Your task to perform on an android device: open chrome privacy settings Image 0: 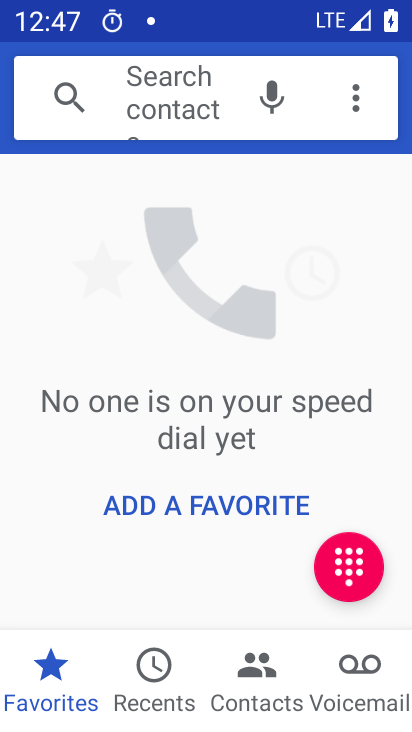
Step 0: press back button
Your task to perform on an android device: open chrome privacy settings Image 1: 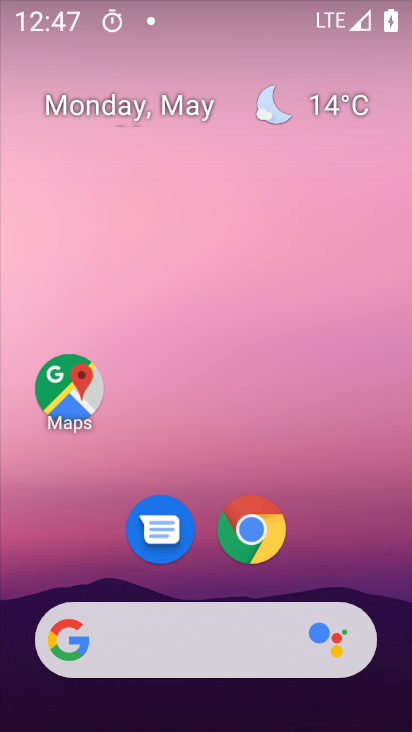
Step 1: click (277, 534)
Your task to perform on an android device: open chrome privacy settings Image 2: 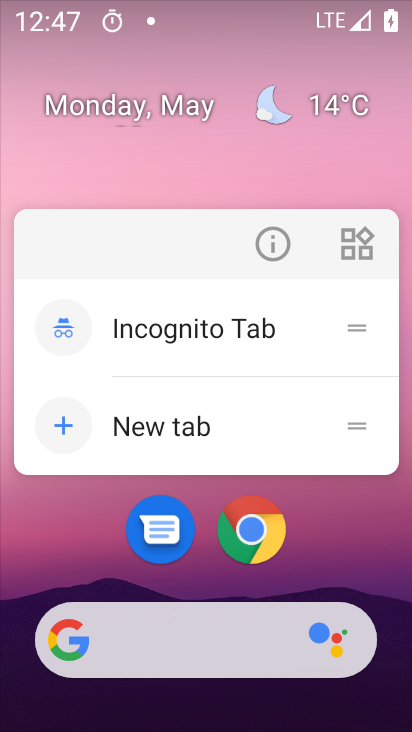
Step 2: click (249, 541)
Your task to perform on an android device: open chrome privacy settings Image 3: 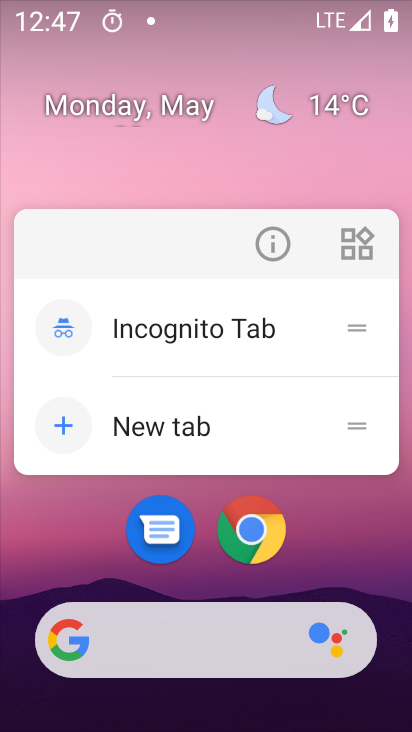
Step 3: click (260, 536)
Your task to perform on an android device: open chrome privacy settings Image 4: 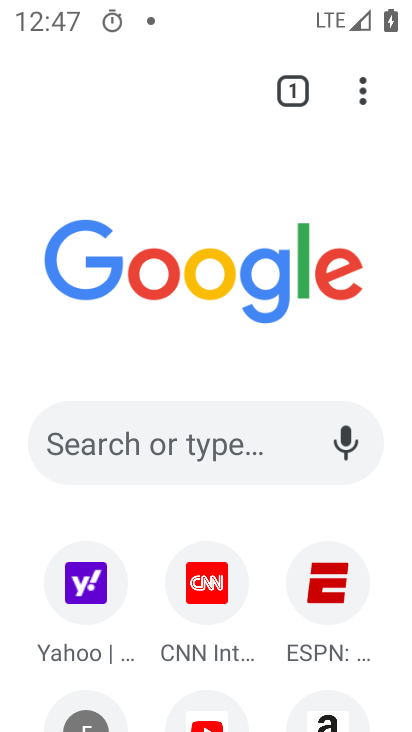
Step 4: click (361, 87)
Your task to perform on an android device: open chrome privacy settings Image 5: 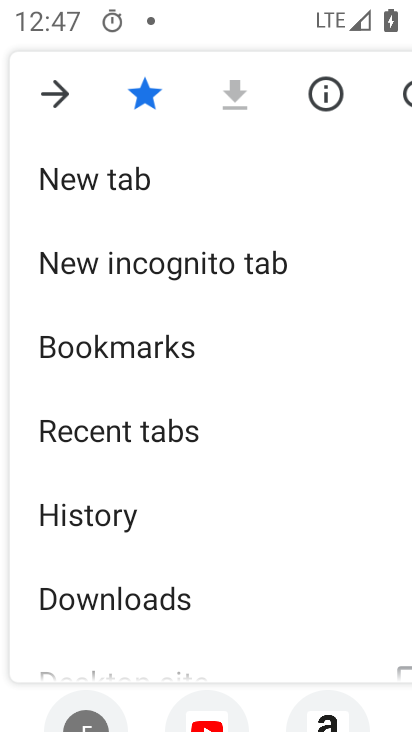
Step 5: drag from (312, 502) to (323, 410)
Your task to perform on an android device: open chrome privacy settings Image 6: 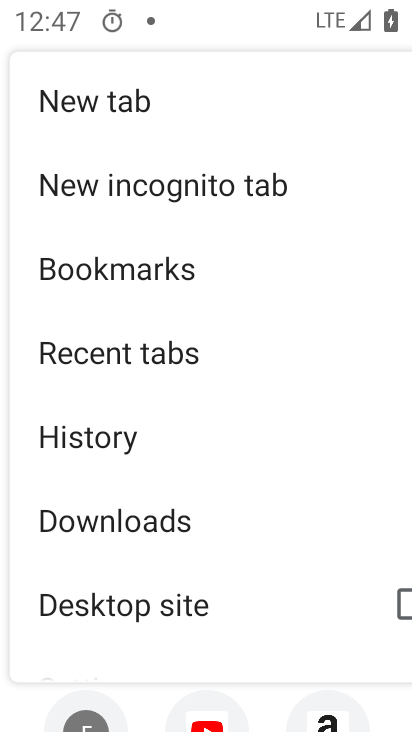
Step 6: drag from (320, 561) to (319, 467)
Your task to perform on an android device: open chrome privacy settings Image 7: 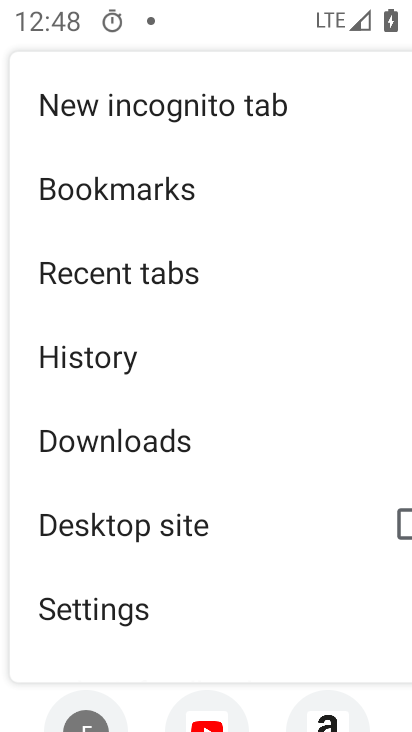
Step 7: drag from (319, 563) to (326, 478)
Your task to perform on an android device: open chrome privacy settings Image 8: 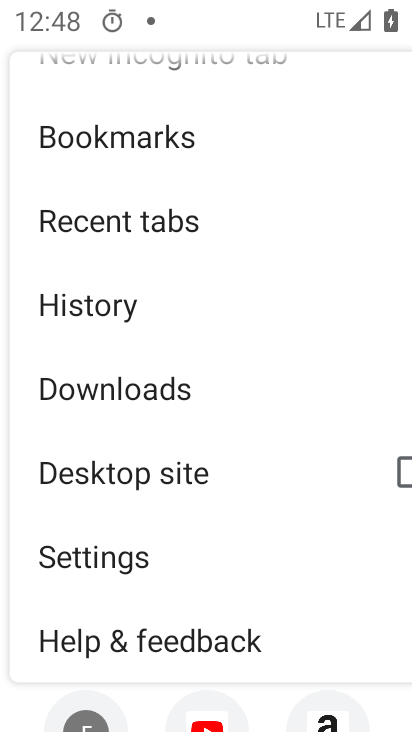
Step 8: drag from (336, 575) to (339, 484)
Your task to perform on an android device: open chrome privacy settings Image 9: 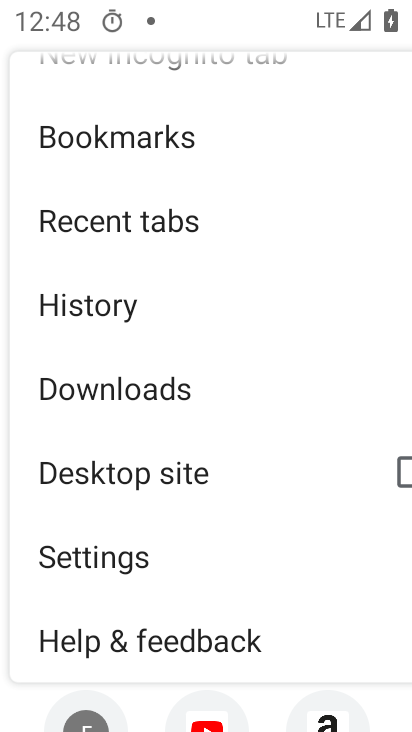
Step 9: drag from (346, 585) to (354, 489)
Your task to perform on an android device: open chrome privacy settings Image 10: 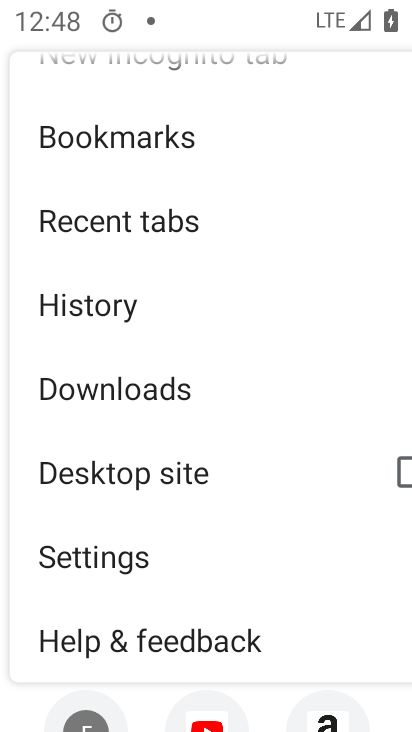
Step 10: drag from (295, 249) to (301, 374)
Your task to perform on an android device: open chrome privacy settings Image 11: 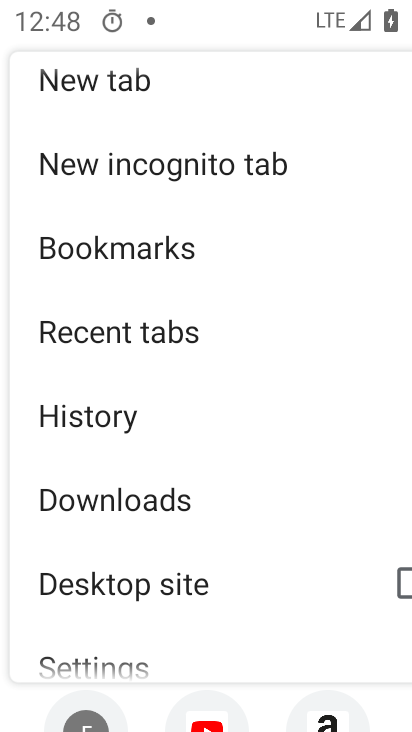
Step 11: drag from (276, 624) to (289, 464)
Your task to perform on an android device: open chrome privacy settings Image 12: 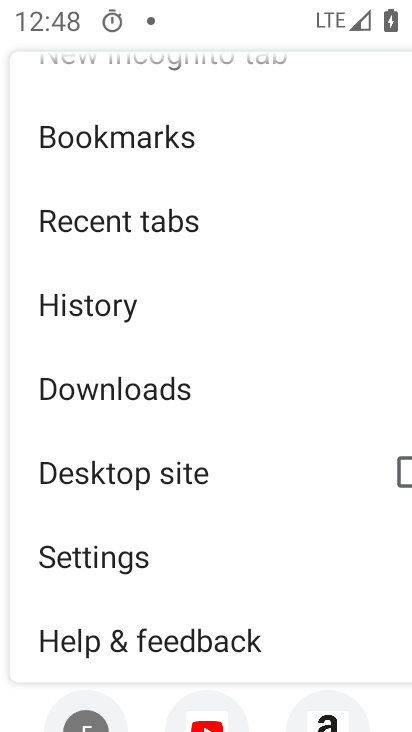
Step 12: click (169, 558)
Your task to perform on an android device: open chrome privacy settings Image 13: 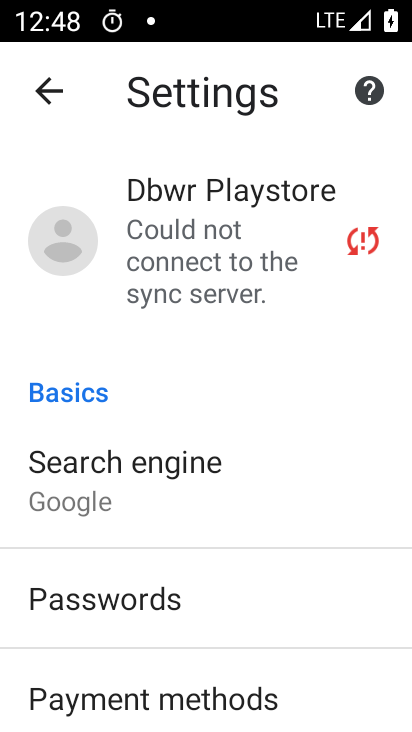
Step 13: drag from (372, 594) to (372, 498)
Your task to perform on an android device: open chrome privacy settings Image 14: 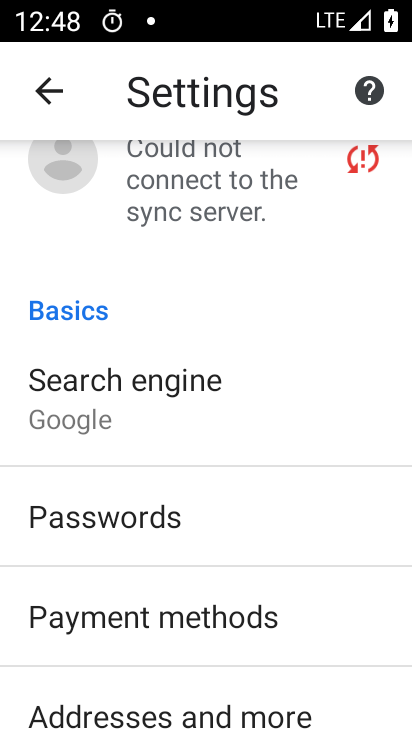
Step 14: drag from (368, 627) to (360, 536)
Your task to perform on an android device: open chrome privacy settings Image 15: 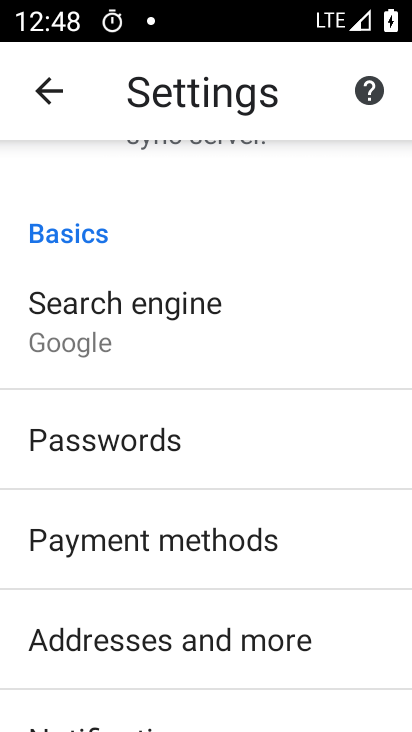
Step 15: drag from (367, 644) to (376, 565)
Your task to perform on an android device: open chrome privacy settings Image 16: 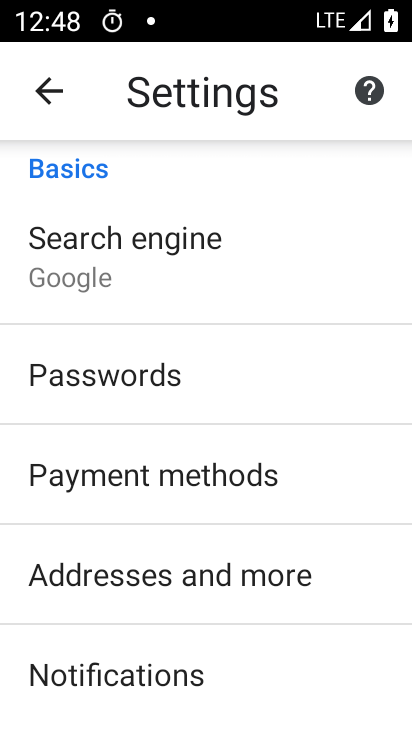
Step 16: drag from (354, 619) to (345, 520)
Your task to perform on an android device: open chrome privacy settings Image 17: 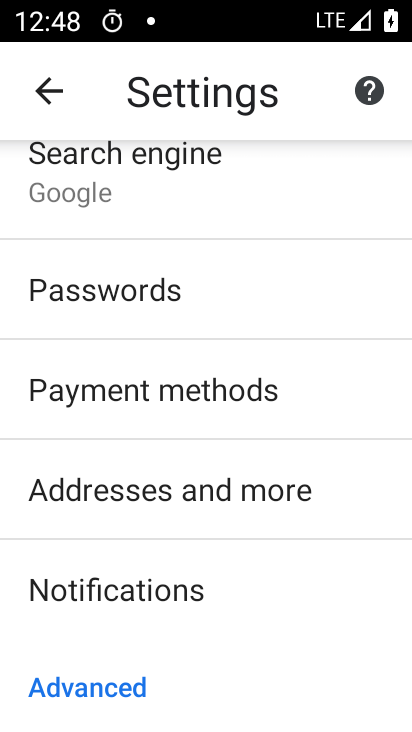
Step 17: drag from (334, 659) to (333, 581)
Your task to perform on an android device: open chrome privacy settings Image 18: 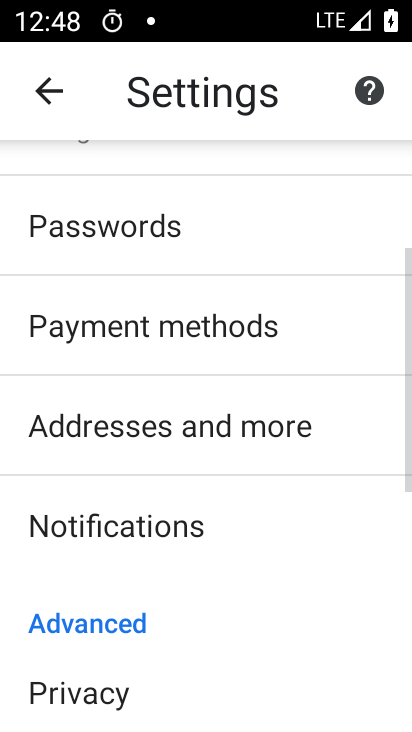
Step 18: drag from (321, 662) to (320, 602)
Your task to perform on an android device: open chrome privacy settings Image 19: 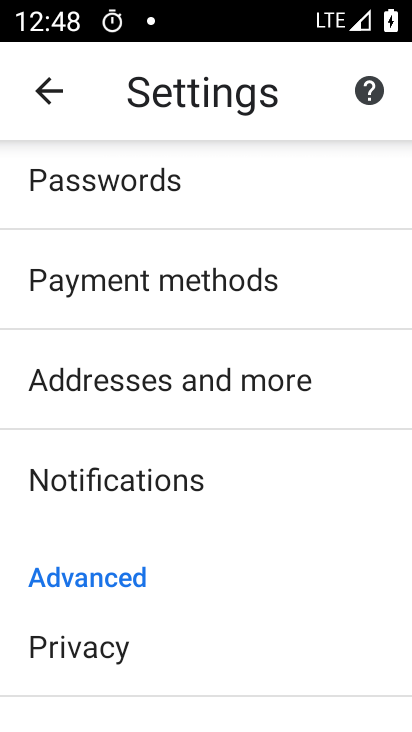
Step 19: click (100, 630)
Your task to perform on an android device: open chrome privacy settings Image 20: 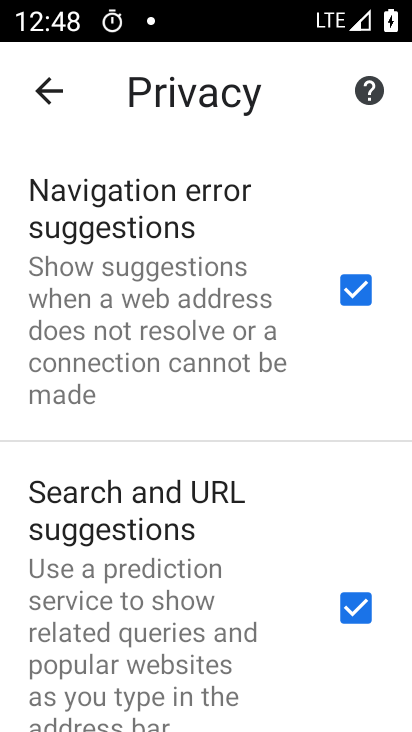
Step 20: task complete